Your task to perform on an android device: Show me the alarms in the clock app Image 0: 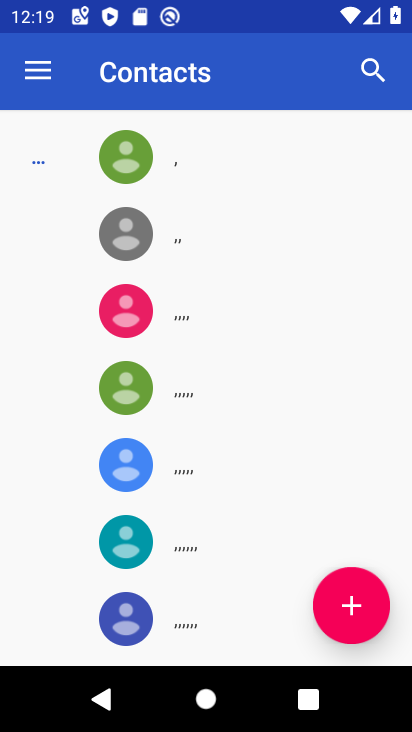
Step 0: press home button
Your task to perform on an android device: Show me the alarms in the clock app Image 1: 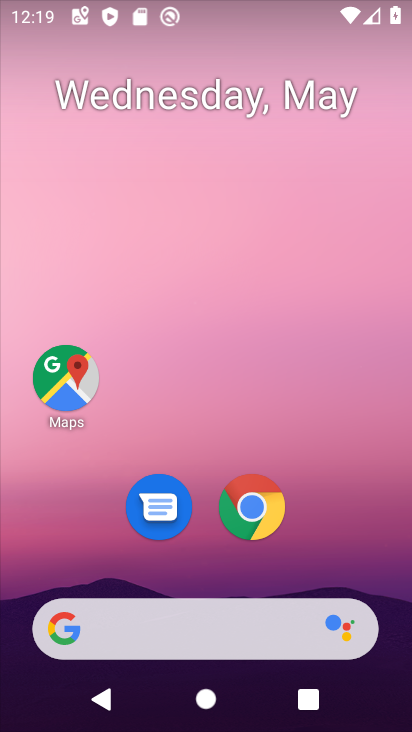
Step 1: drag from (230, 539) to (237, 196)
Your task to perform on an android device: Show me the alarms in the clock app Image 2: 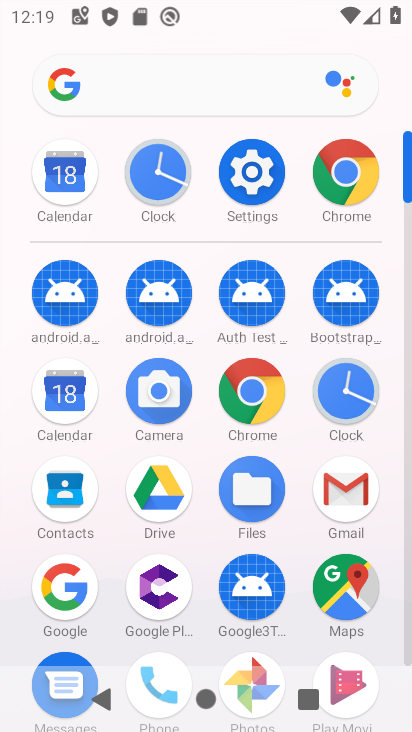
Step 2: click (337, 398)
Your task to perform on an android device: Show me the alarms in the clock app Image 3: 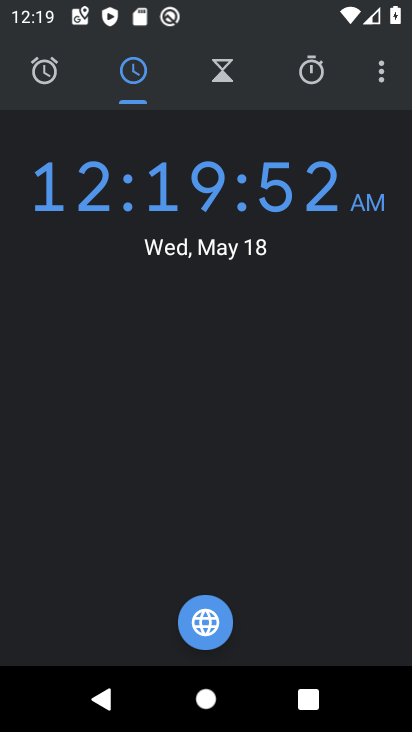
Step 3: click (41, 66)
Your task to perform on an android device: Show me the alarms in the clock app Image 4: 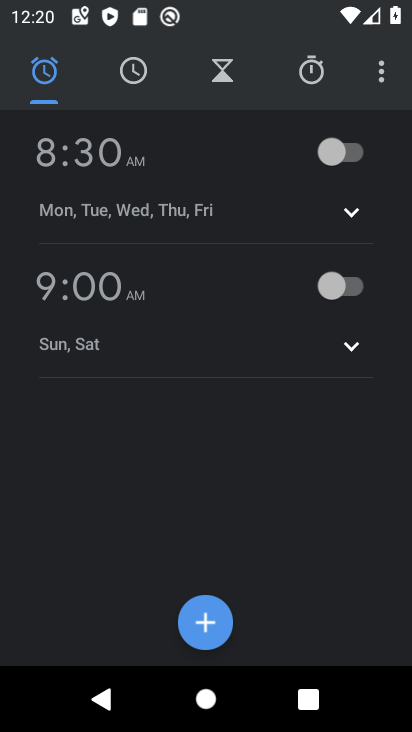
Step 4: task complete